Your task to perform on an android device: turn off picture-in-picture Image 0: 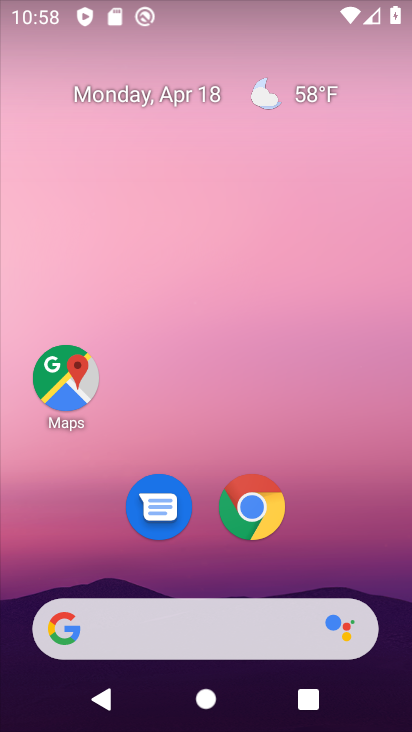
Step 0: click (254, 528)
Your task to perform on an android device: turn off picture-in-picture Image 1: 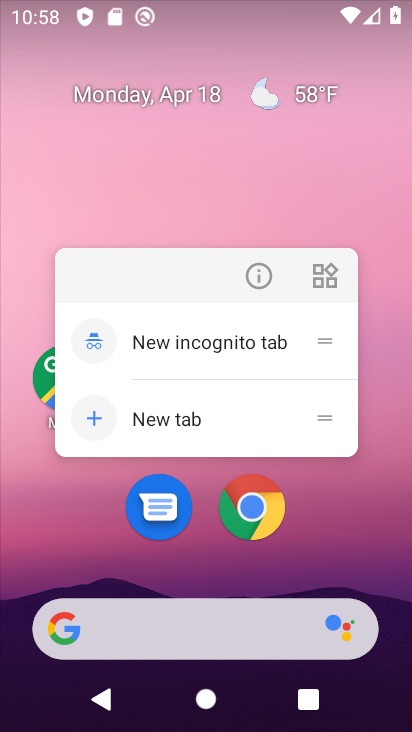
Step 1: click (270, 275)
Your task to perform on an android device: turn off picture-in-picture Image 2: 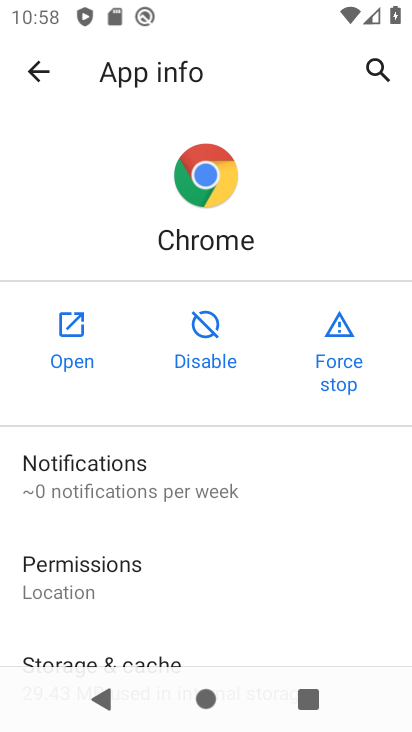
Step 2: drag from (117, 579) to (237, 4)
Your task to perform on an android device: turn off picture-in-picture Image 3: 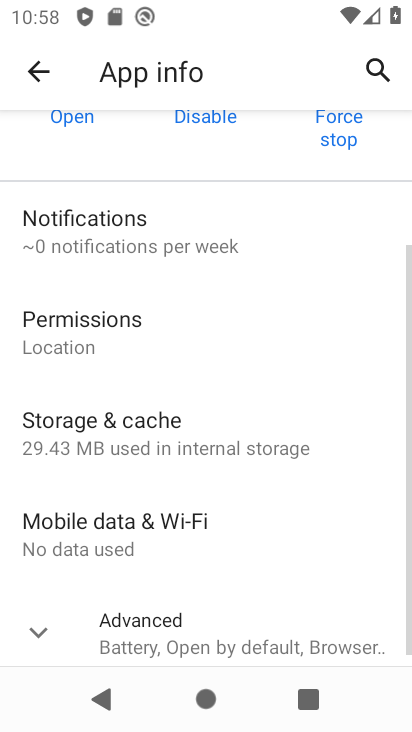
Step 3: click (145, 647)
Your task to perform on an android device: turn off picture-in-picture Image 4: 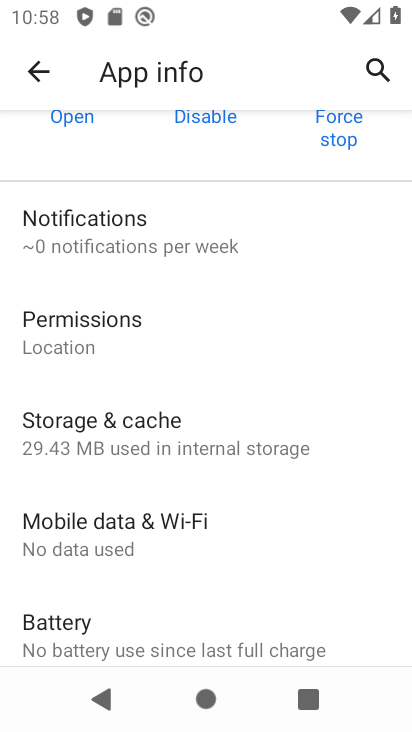
Step 4: drag from (63, 622) to (163, 179)
Your task to perform on an android device: turn off picture-in-picture Image 5: 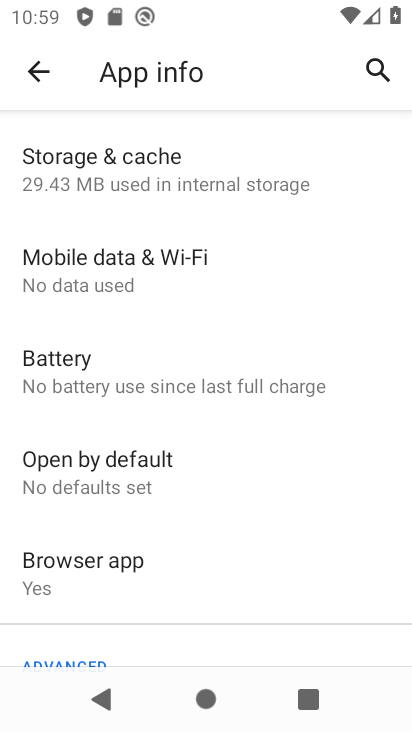
Step 5: drag from (109, 580) to (181, 159)
Your task to perform on an android device: turn off picture-in-picture Image 6: 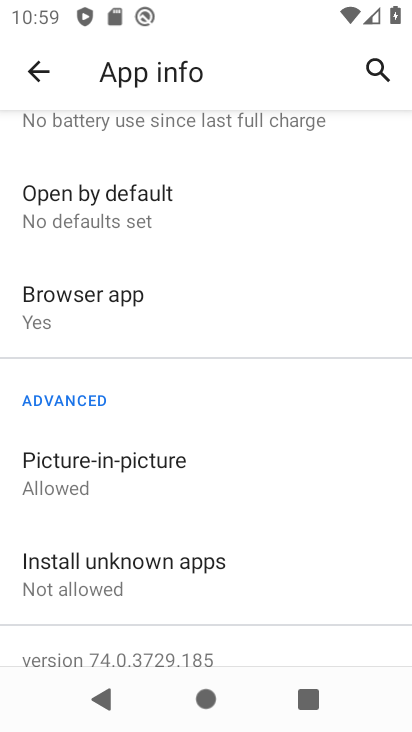
Step 6: click (130, 483)
Your task to perform on an android device: turn off picture-in-picture Image 7: 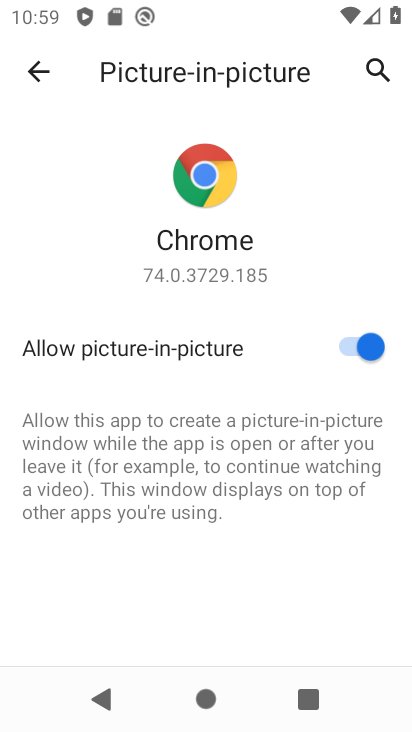
Step 7: click (352, 339)
Your task to perform on an android device: turn off picture-in-picture Image 8: 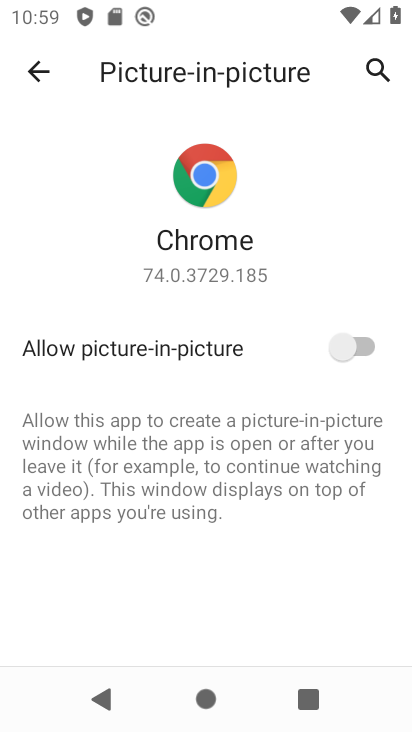
Step 8: task complete